Your task to perform on an android device: Open calendar and show me the second week of next month Image 0: 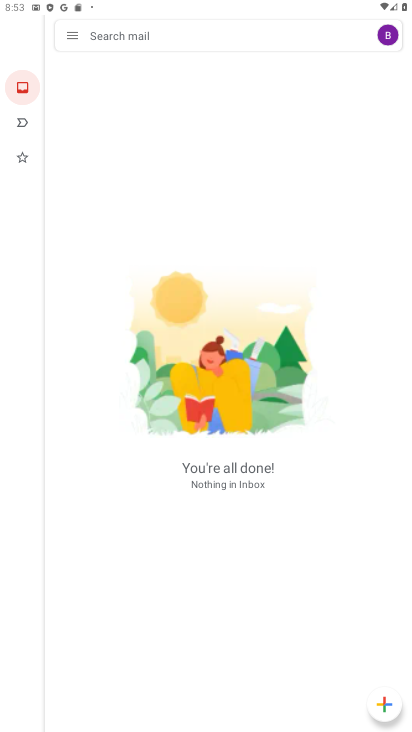
Step 0: press home button
Your task to perform on an android device: Open calendar and show me the second week of next month Image 1: 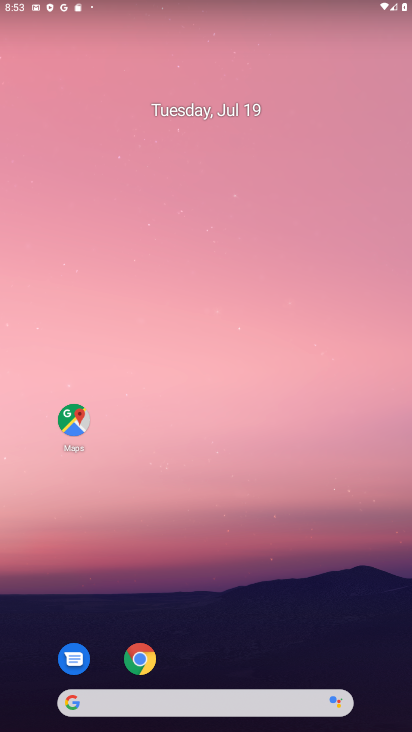
Step 1: drag from (221, 637) to (357, 77)
Your task to perform on an android device: Open calendar and show me the second week of next month Image 2: 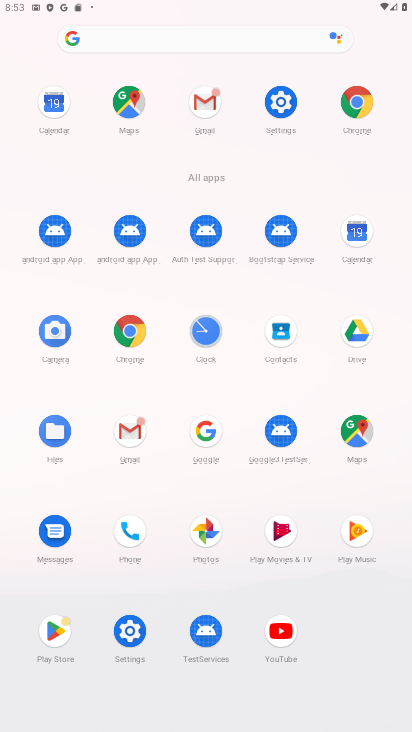
Step 2: click (361, 228)
Your task to perform on an android device: Open calendar and show me the second week of next month Image 3: 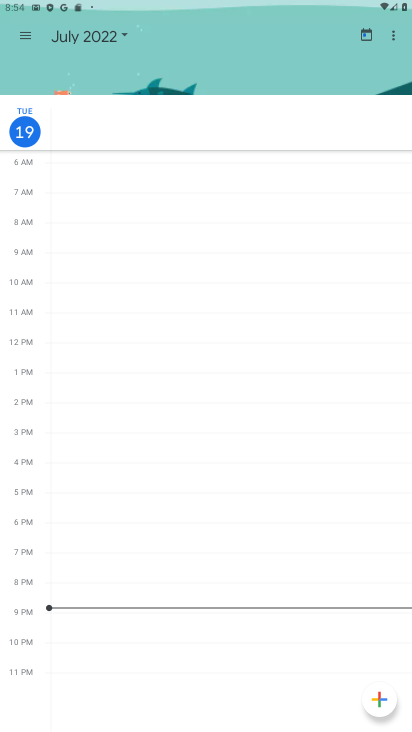
Step 3: click (98, 38)
Your task to perform on an android device: Open calendar and show me the second week of next month Image 4: 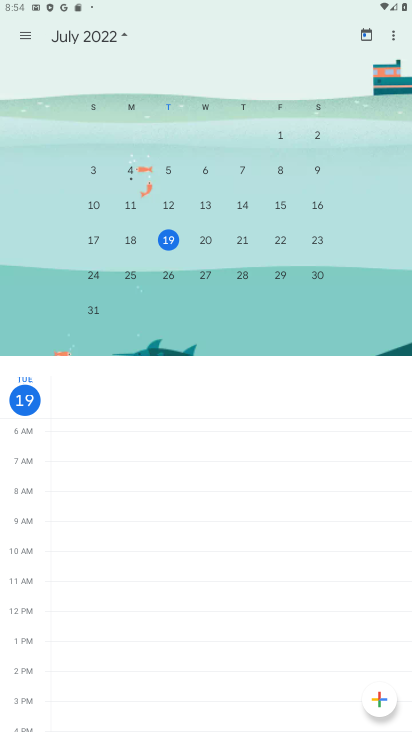
Step 4: drag from (365, 228) to (1, 173)
Your task to perform on an android device: Open calendar and show me the second week of next month Image 5: 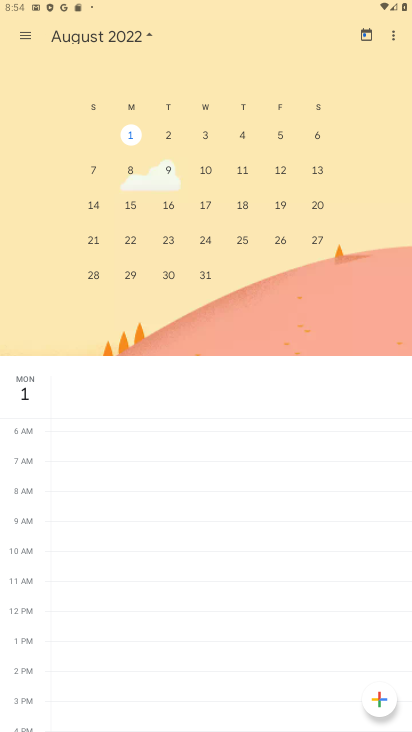
Step 5: click (283, 165)
Your task to perform on an android device: Open calendar and show me the second week of next month Image 6: 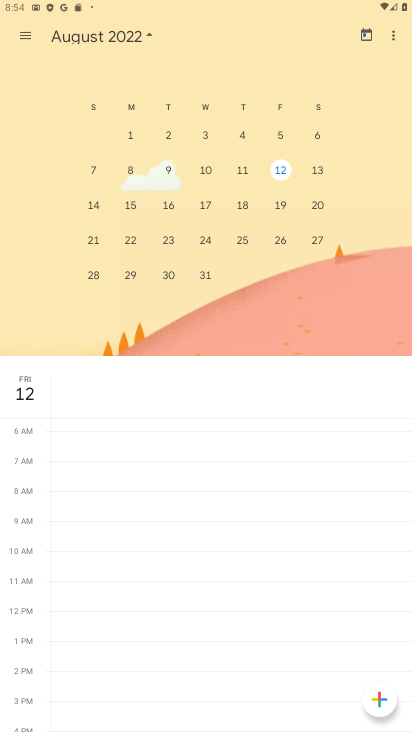
Step 6: task complete